Your task to perform on an android device: Open Yahoo.com Image 0: 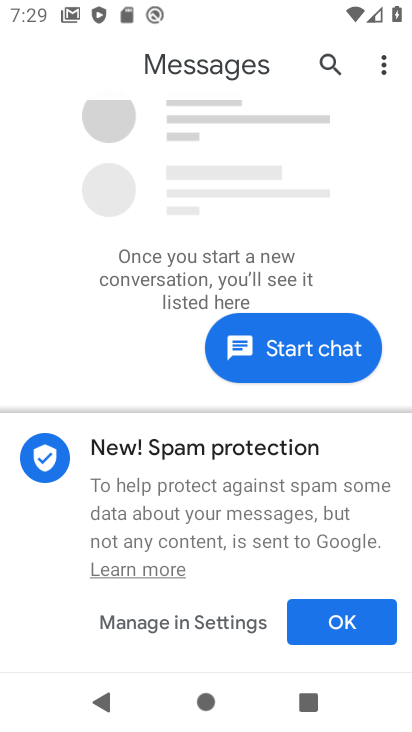
Step 0: press home button
Your task to perform on an android device: Open Yahoo.com Image 1: 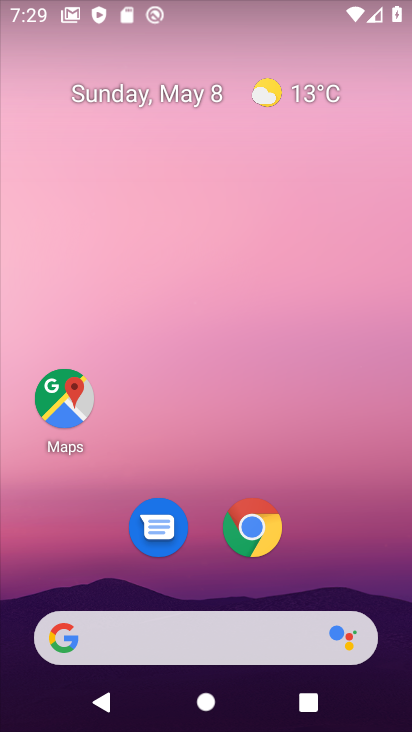
Step 1: click (249, 515)
Your task to perform on an android device: Open Yahoo.com Image 2: 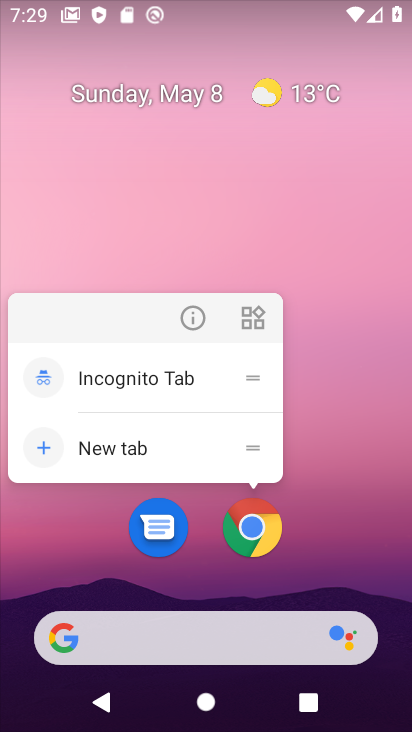
Step 2: click (251, 519)
Your task to perform on an android device: Open Yahoo.com Image 3: 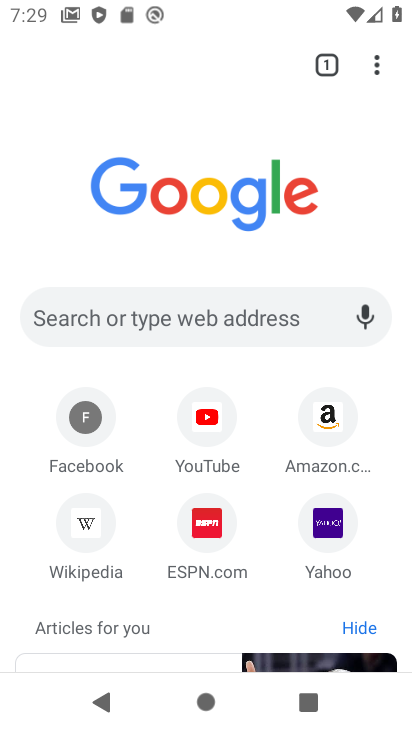
Step 3: click (319, 529)
Your task to perform on an android device: Open Yahoo.com Image 4: 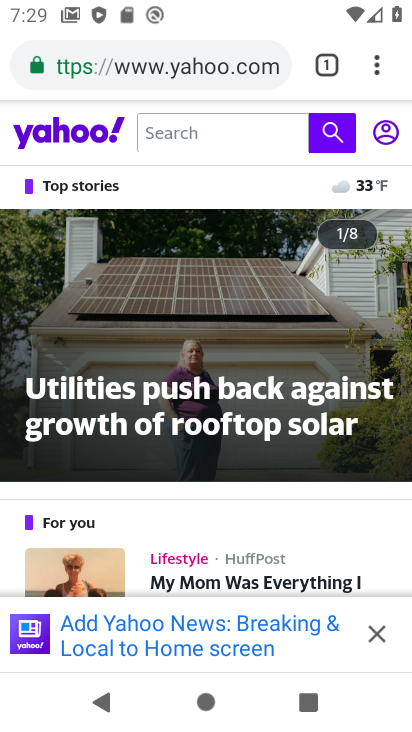
Step 4: task complete